Your task to perform on an android device: turn notification dots on Image 0: 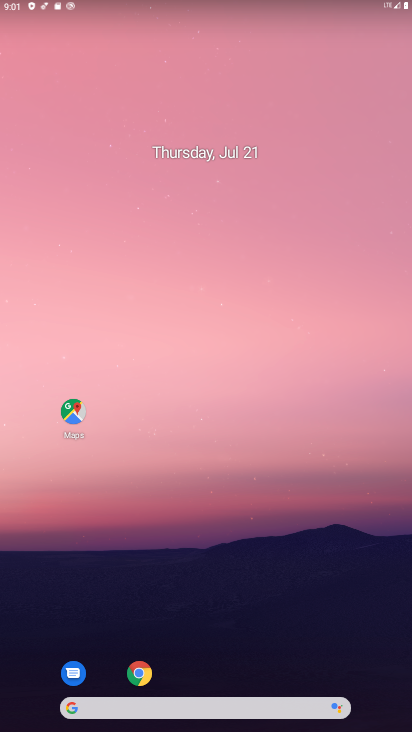
Step 0: drag from (192, 674) to (184, 244)
Your task to perform on an android device: turn notification dots on Image 1: 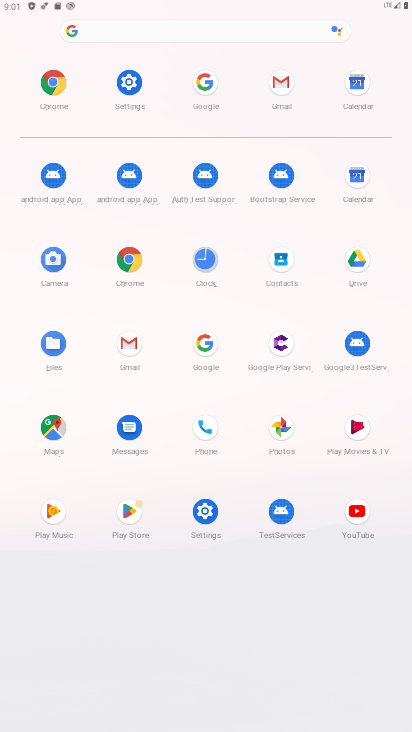
Step 1: click (135, 90)
Your task to perform on an android device: turn notification dots on Image 2: 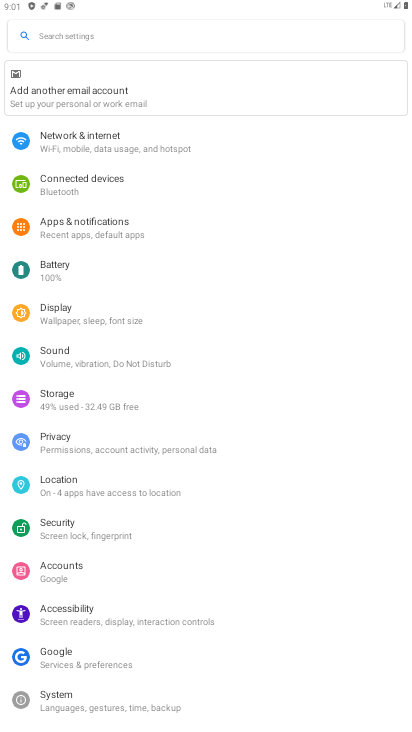
Step 2: click (140, 235)
Your task to perform on an android device: turn notification dots on Image 3: 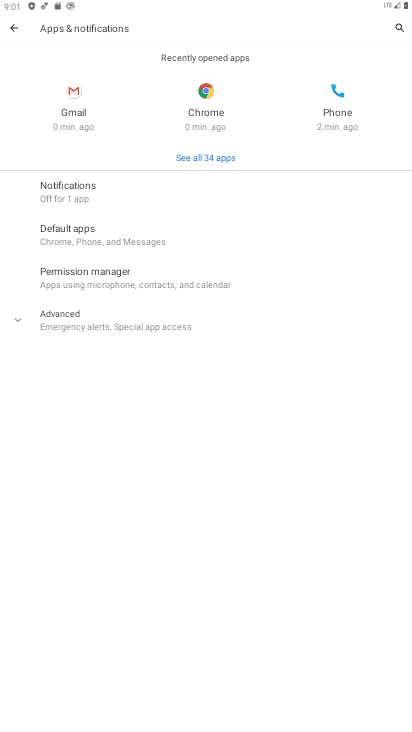
Step 3: click (108, 203)
Your task to perform on an android device: turn notification dots on Image 4: 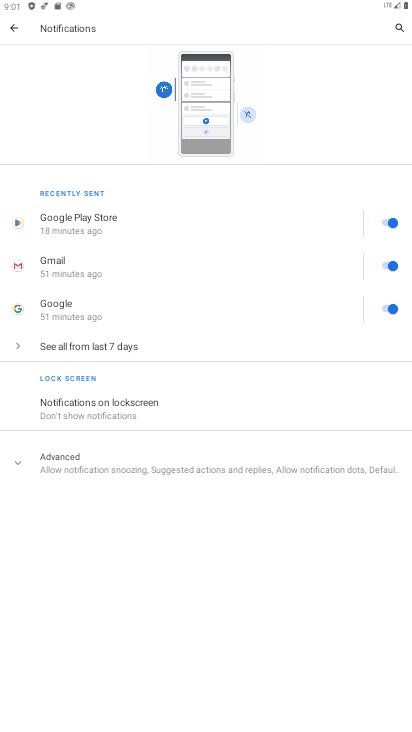
Step 4: click (67, 455)
Your task to perform on an android device: turn notification dots on Image 5: 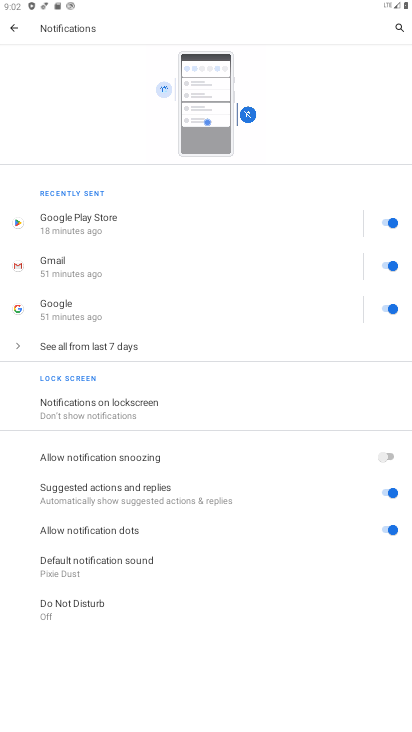
Step 5: task complete